Your task to perform on an android device: Search for hotels in Las Vegas Image 0: 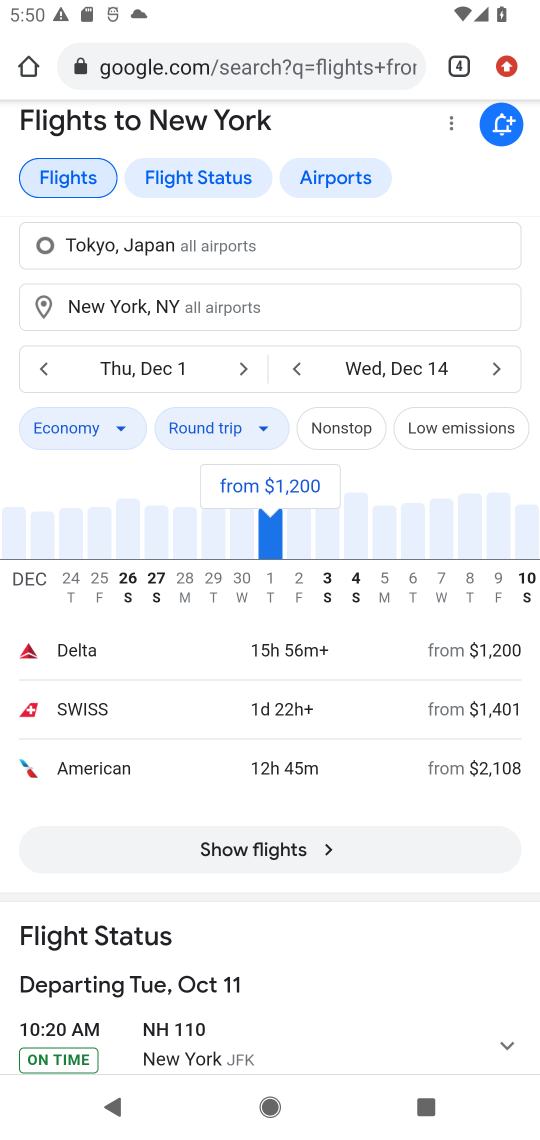
Step 0: click (296, 43)
Your task to perform on an android device: Search for hotels in Las Vegas Image 1: 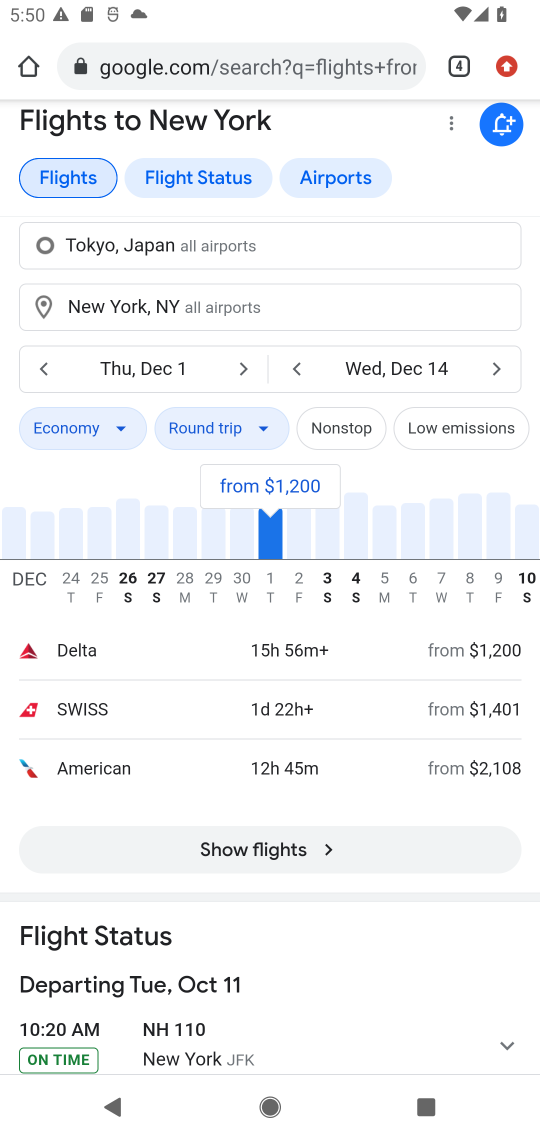
Step 1: click (330, 66)
Your task to perform on an android device: Search for hotels in Las Vegas Image 2: 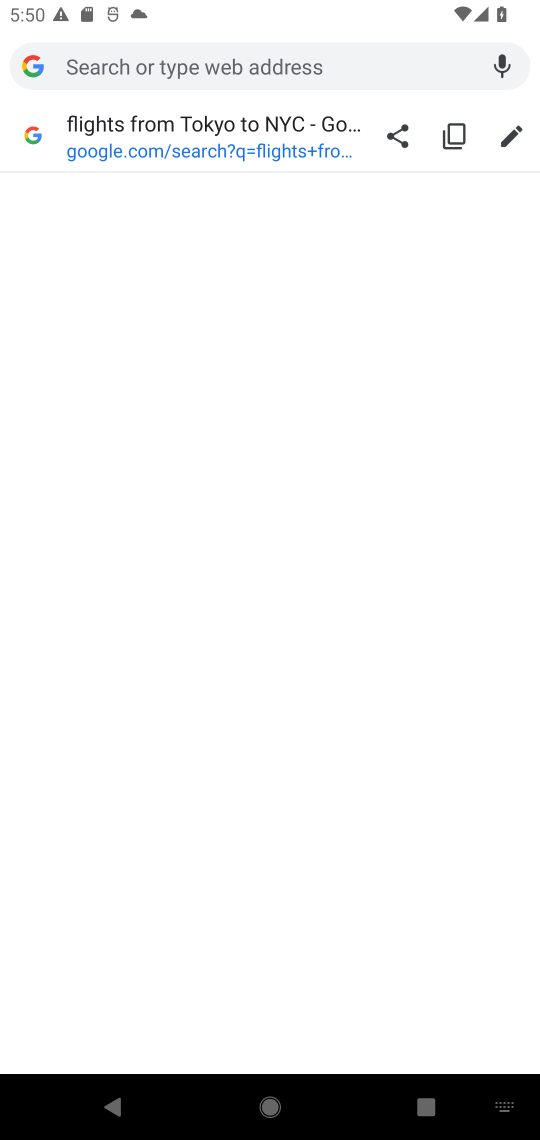
Step 2: type "hotels in las Vega"
Your task to perform on an android device: Search for hotels in Las Vegas Image 3: 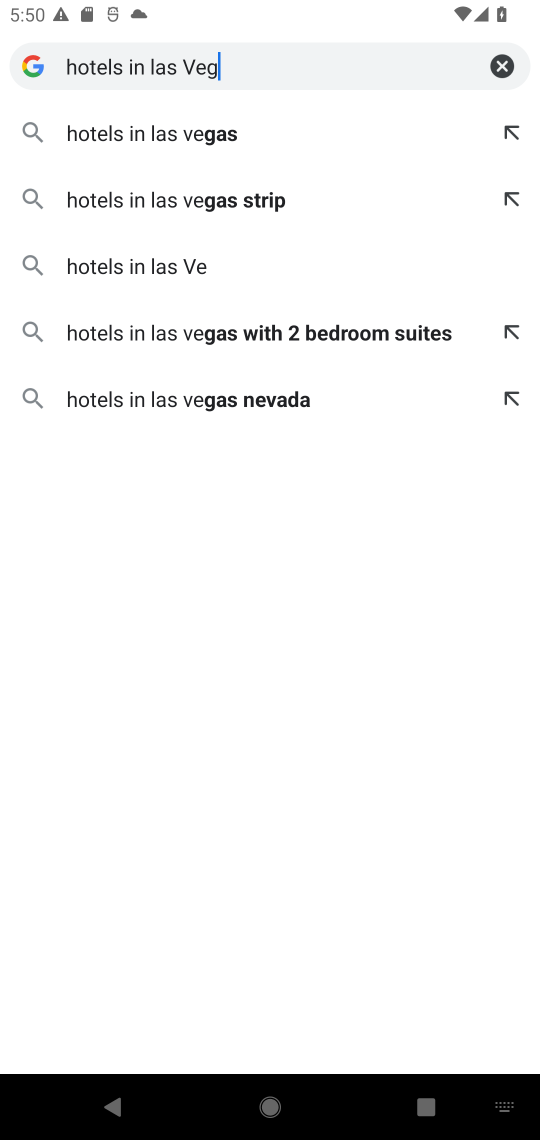
Step 3: type ""
Your task to perform on an android device: Search for hotels in Las Vegas Image 4: 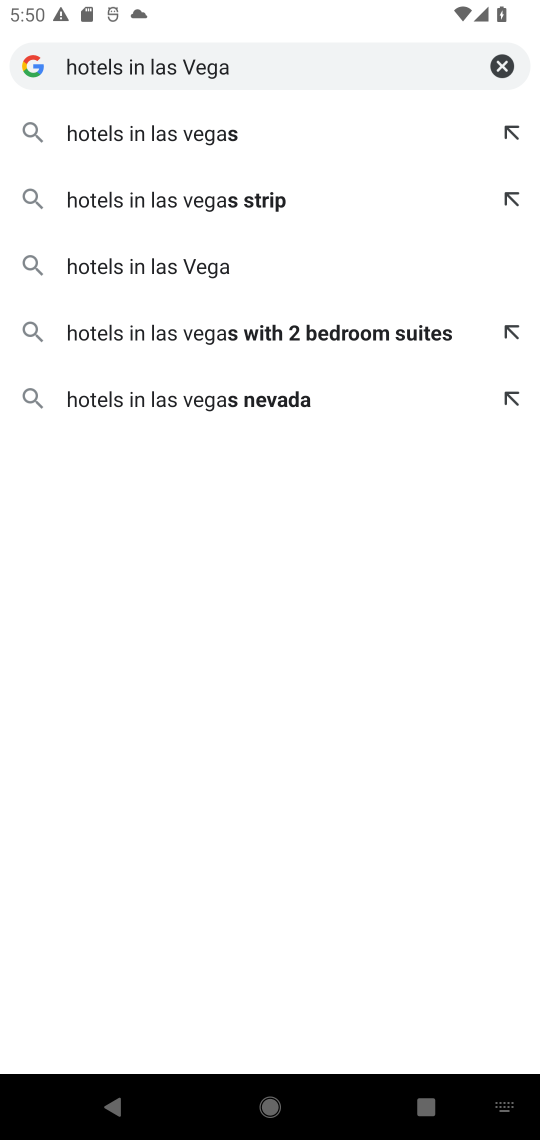
Step 4: press enter
Your task to perform on an android device: Search for hotels in Las Vegas Image 5: 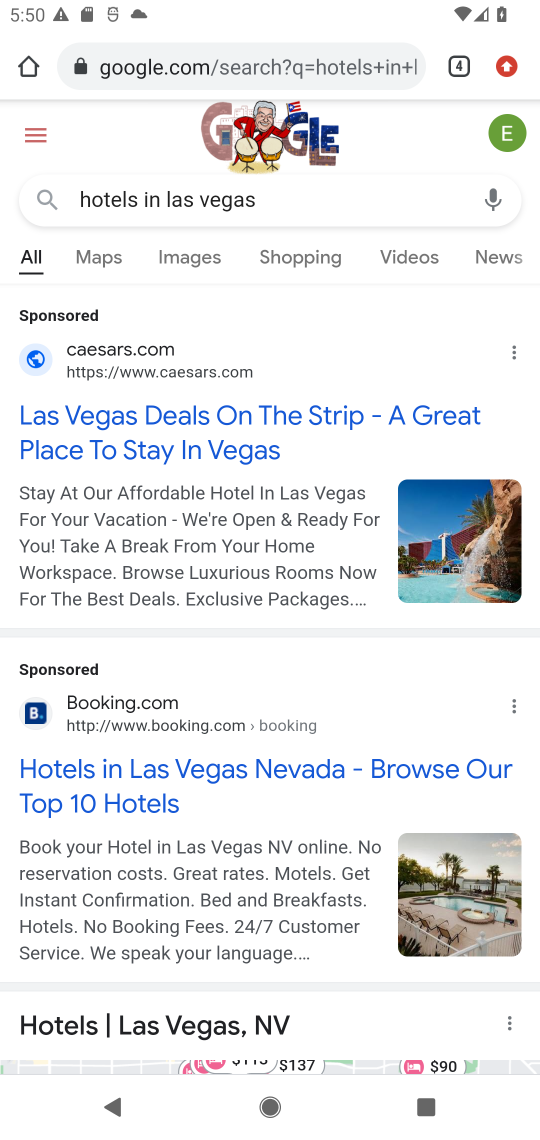
Step 5: task complete